Your task to perform on an android device: Open the calendar app, open the side menu, and click the "Day" option Image 0: 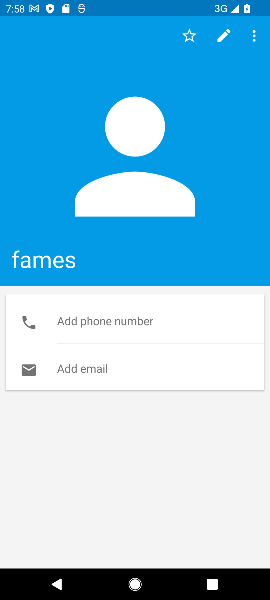
Step 0: press home button
Your task to perform on an android device: Open the calendar app, open the side menu, and click the "Day" option Image 1: 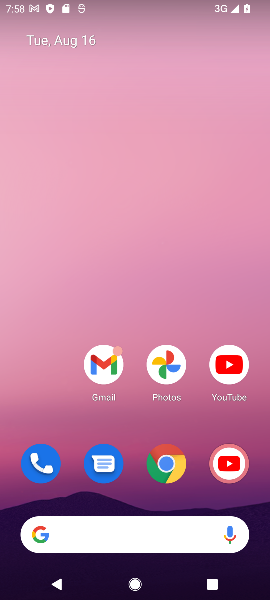
Step 1: drag from (135, 494) to (122, 29)
Your task to perform on an android device: Open the calendar app, open the side menu, and click the "Day" option Image 2: 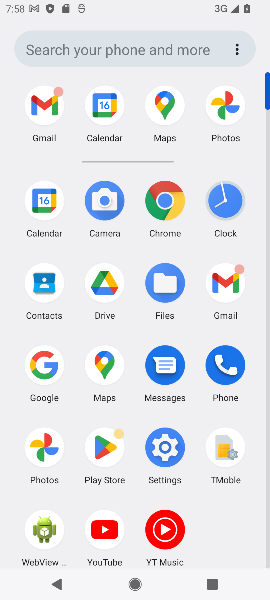
Step 2: click (42, 205)
Your task to perform on an android device: Open the calendar app, open the side menu, and click the "Day" option Image 3: 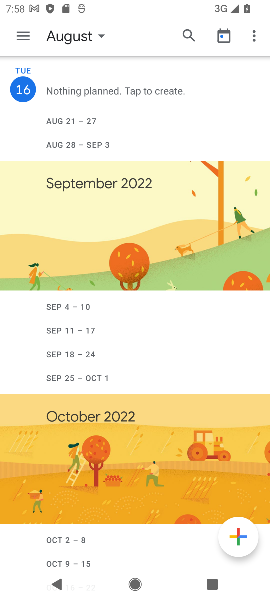
Step 3: click (28, 36)
Your task to perform on an android device: Open the calendar app, open the side menu, and click the "Day" option Image 4: 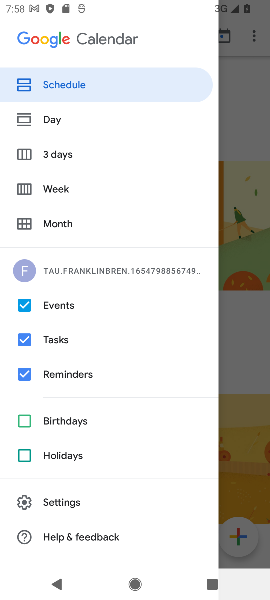
Step 4: click (53, 117)
Your task to perform on an android device: Open the calendar app, open the side menu, and click the "Day" option Image 5: 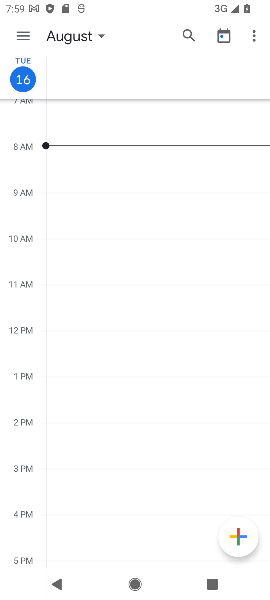
Step 5: task complete